Your task to perform on an android device: turn off wifi Image 0: 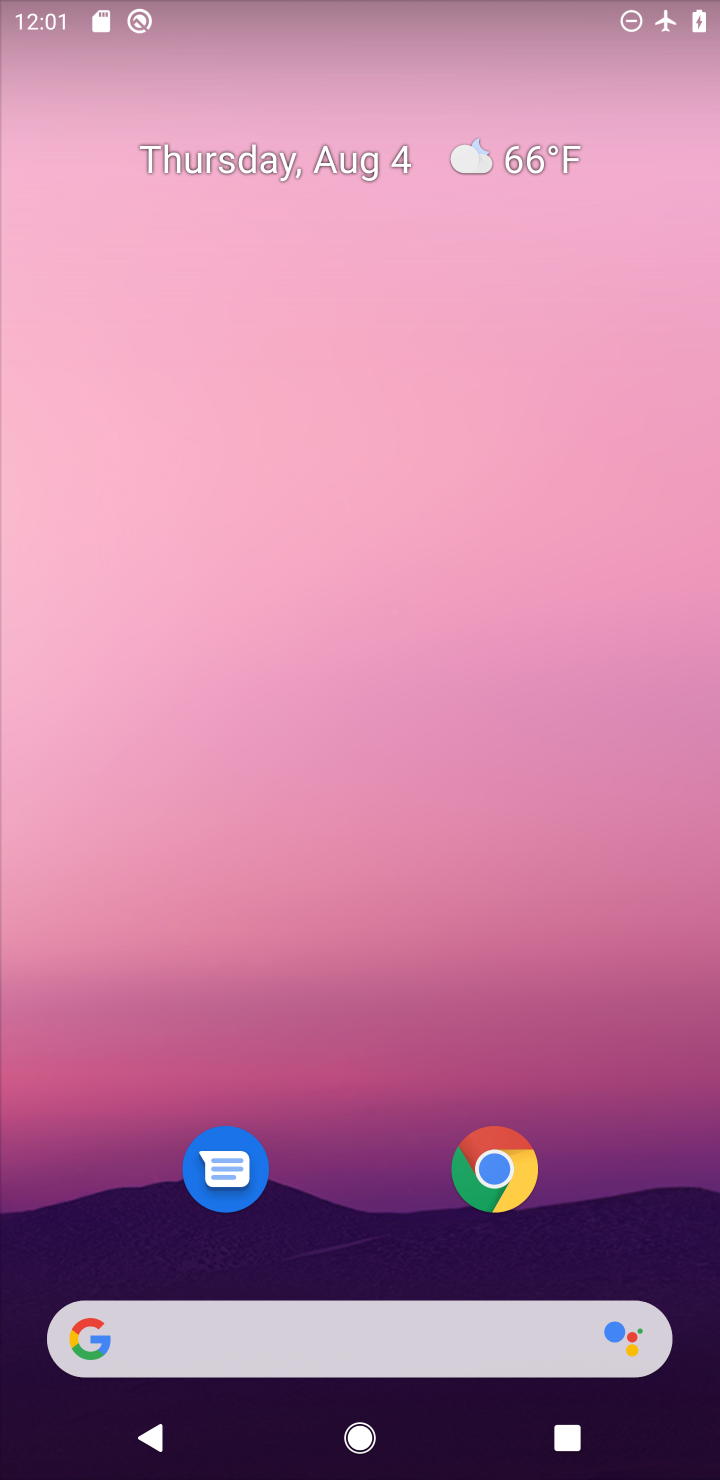
Step 0: drag from (367, 1213) to (397, 36)
Your task to perform on an android device: turn off wifi Image 1: 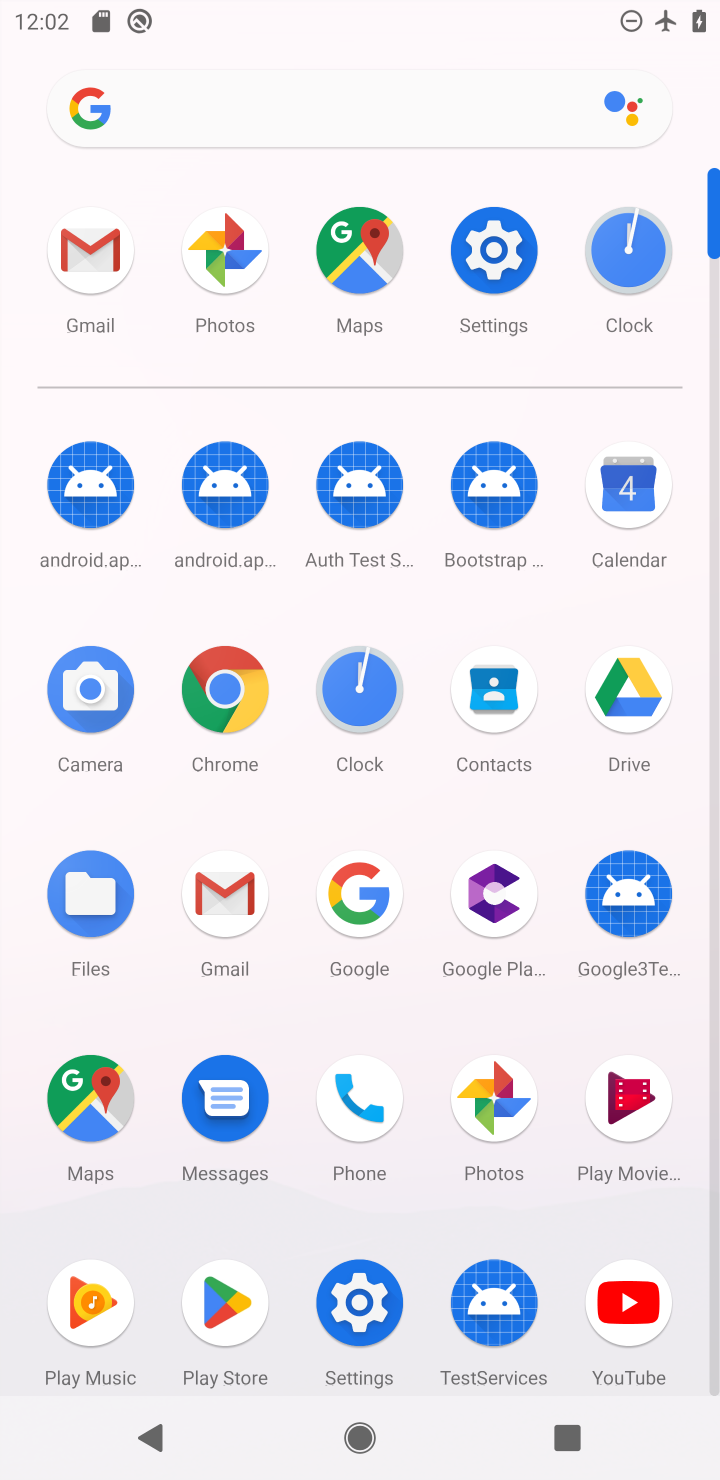
Step 1: click (483, 266)
Your task to perform on an android device: turn off wifi Image 2: 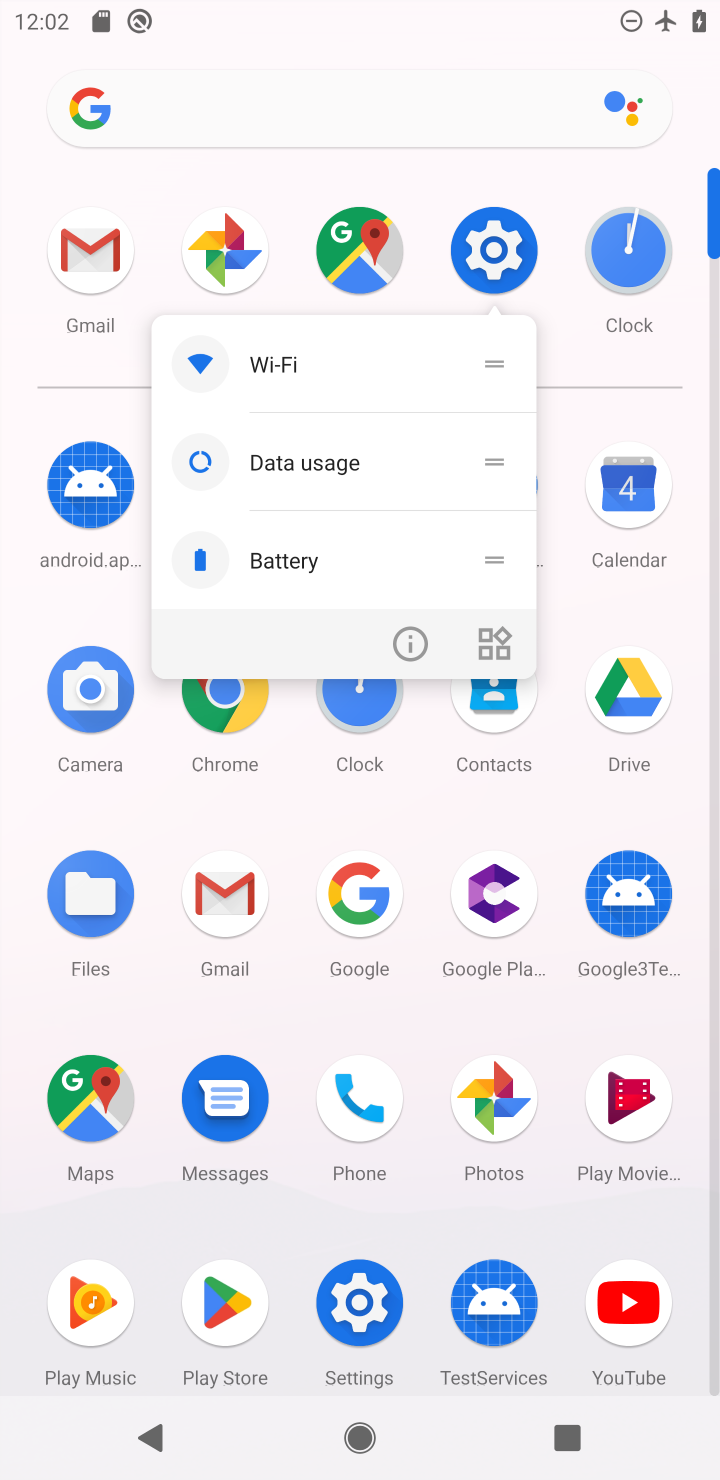
Step 2: click (486, 262)
Your task to perform on an android device: turn off wifi Image 3: 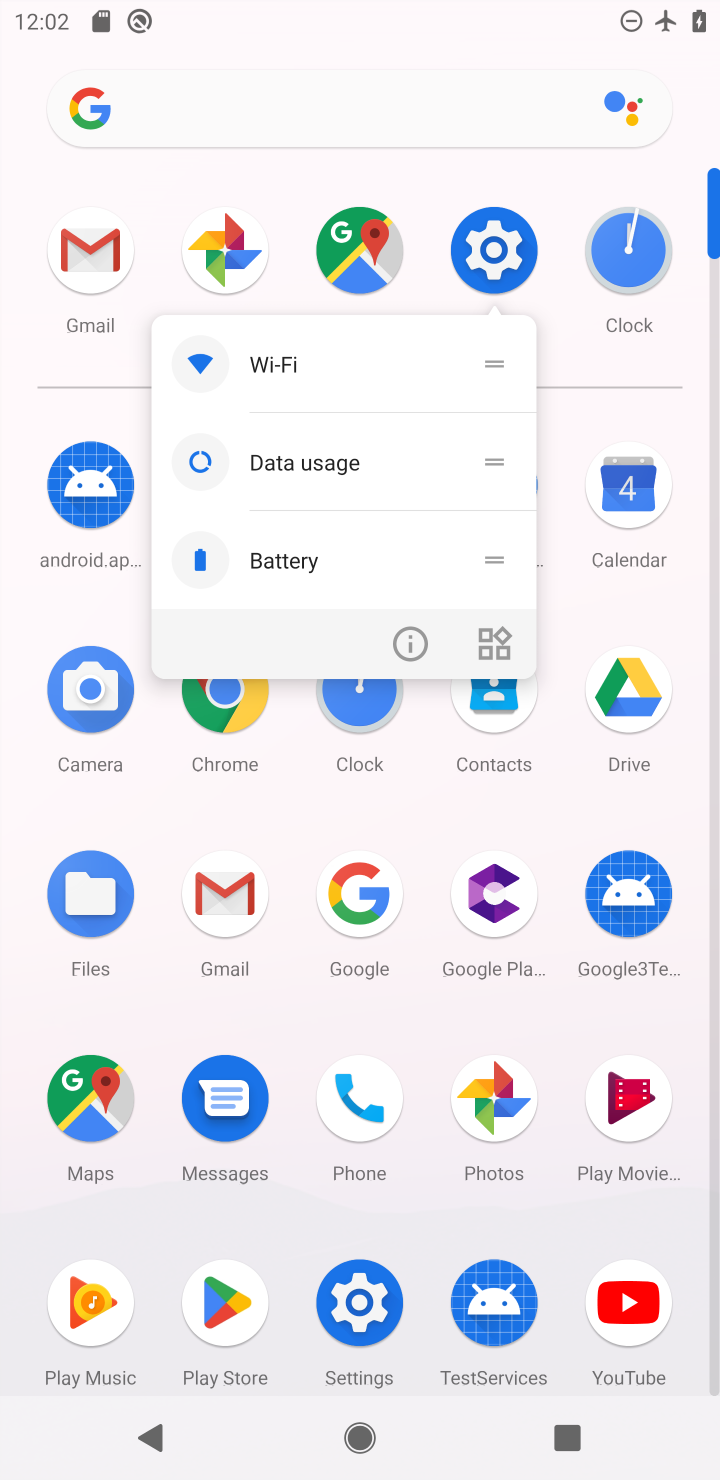
Step 3: click (486, 261)
Your task to perform on an android device: turn off wifi Image 4: 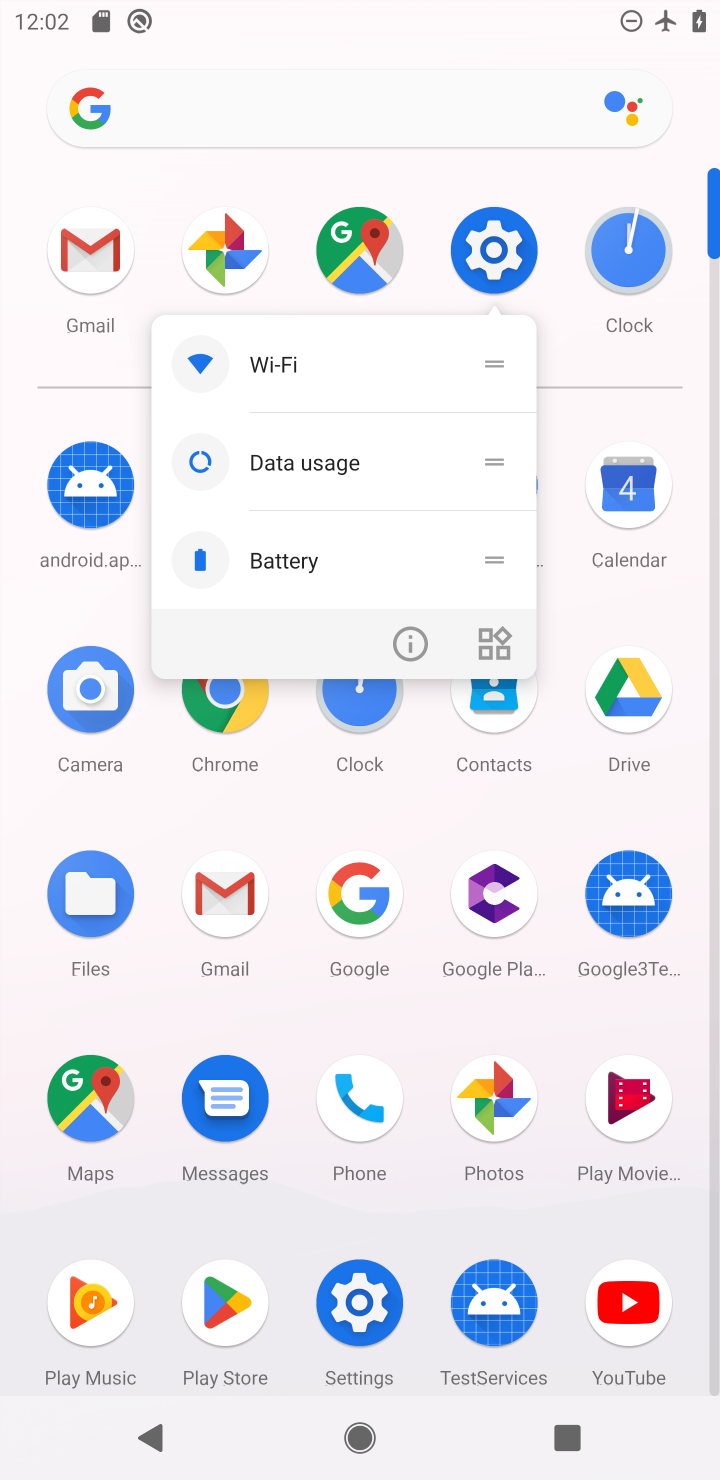
Step 4: click (486, 261)
Your task to perform on an android device: turn off wifi Image 5: 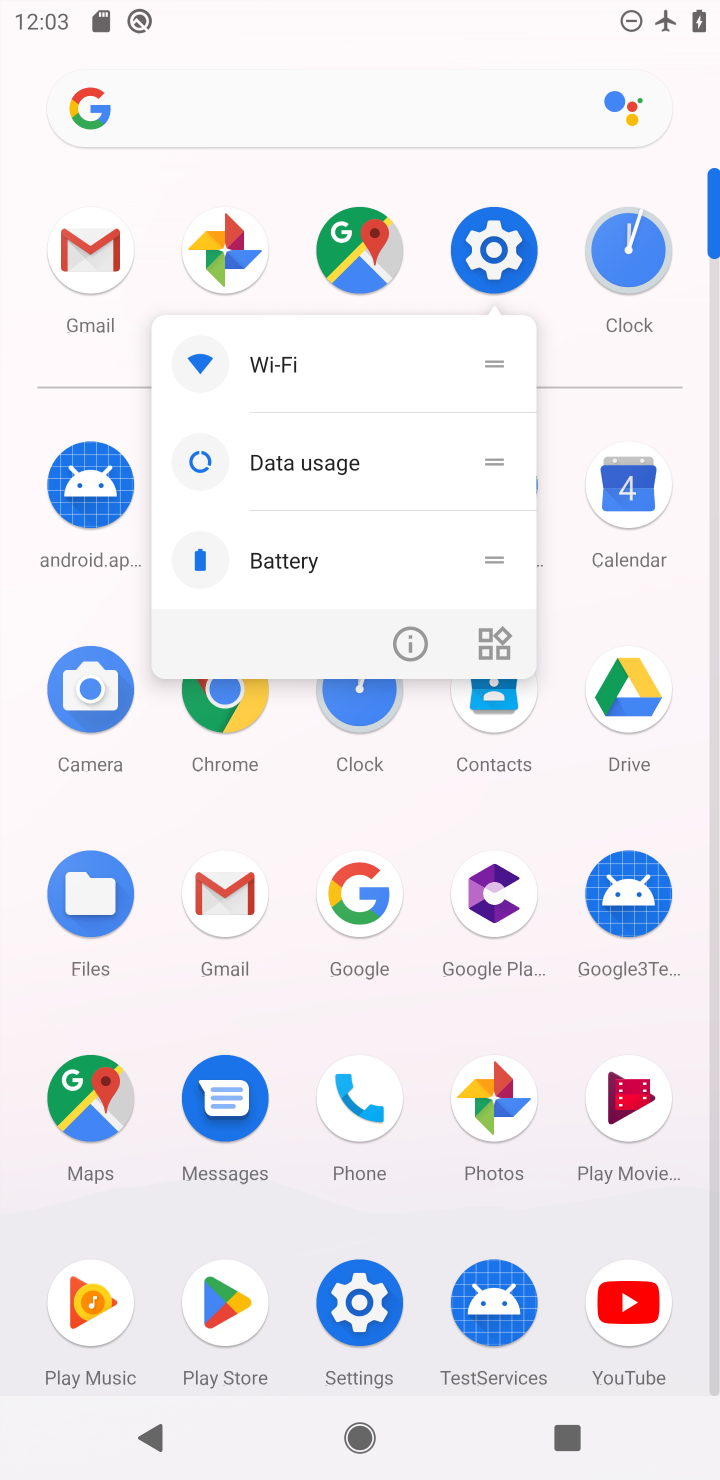
Step 5: click (486, 261)
Your task to perform on an android device: turn off wifi Image 6: 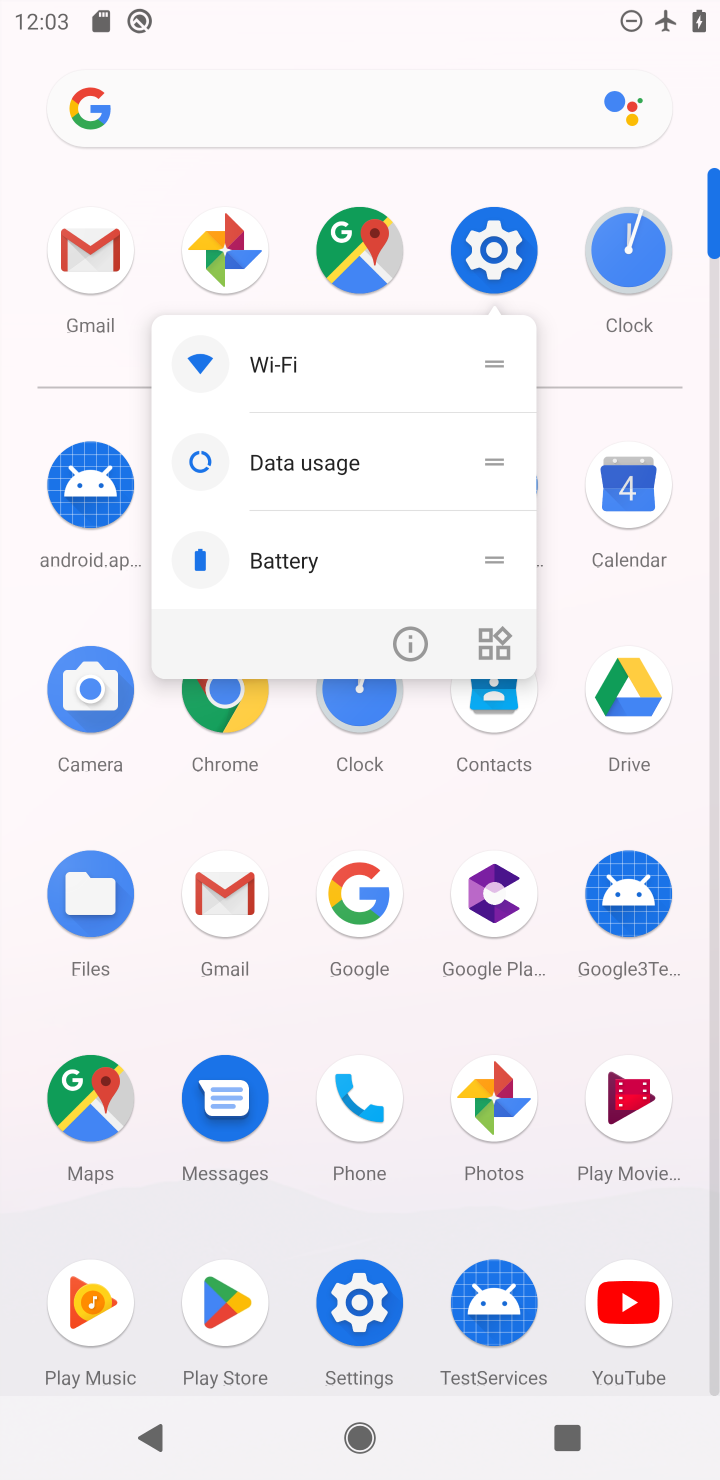
Step 6: click (486, 261)
Your task to perform on an android device: turn off wifi Image 7: 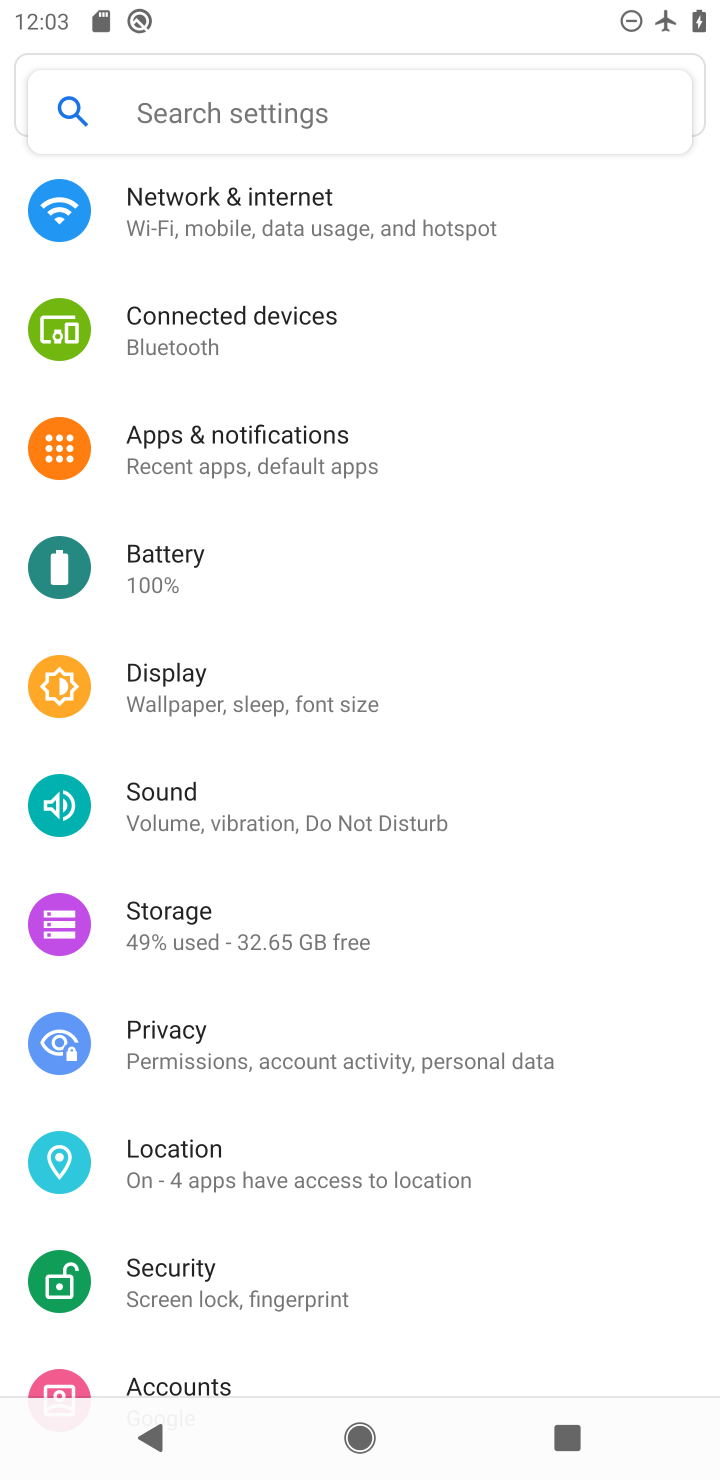
Step 7: click (220, 216)
Your task to perform on an android device: turn off wifi Image 8: 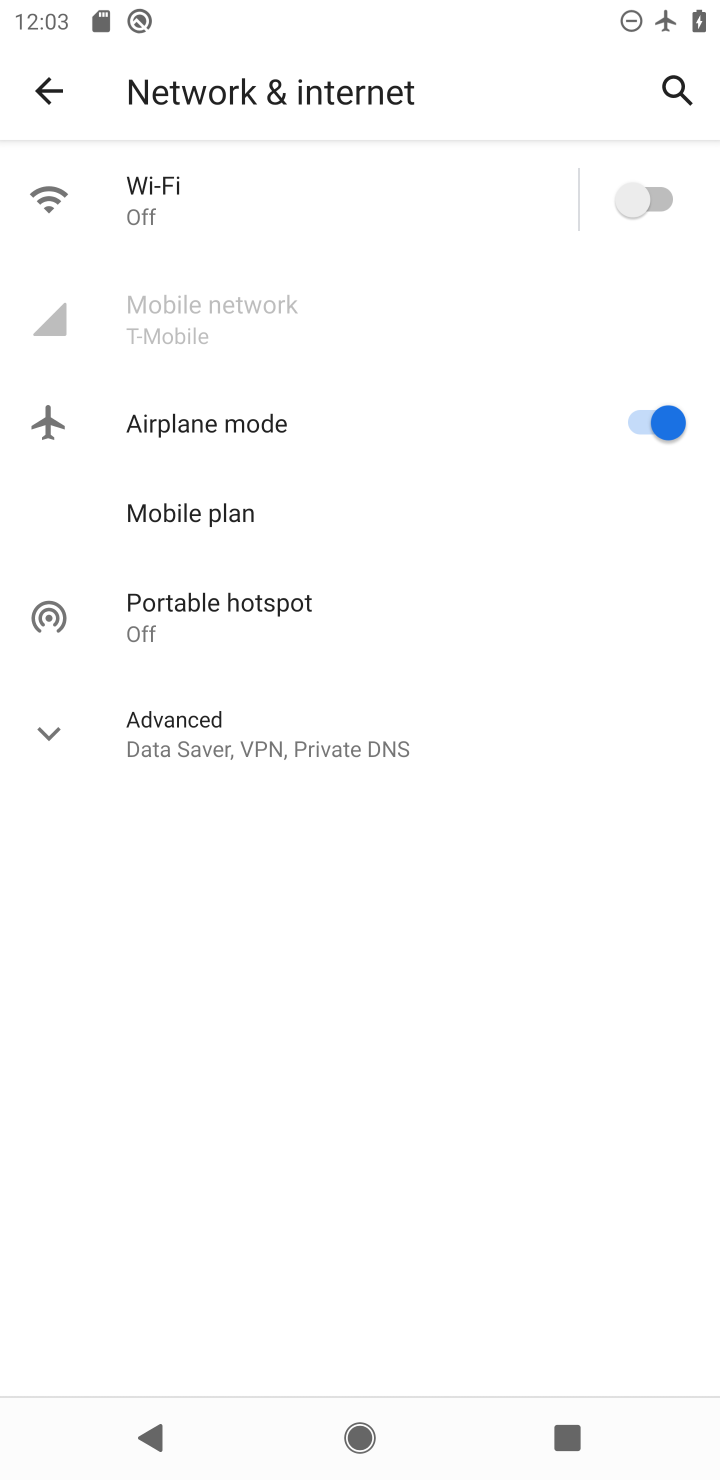
Step 8: task complete